Your task to perform on an android device: turn off priority inbox in the gmail app Image 0: 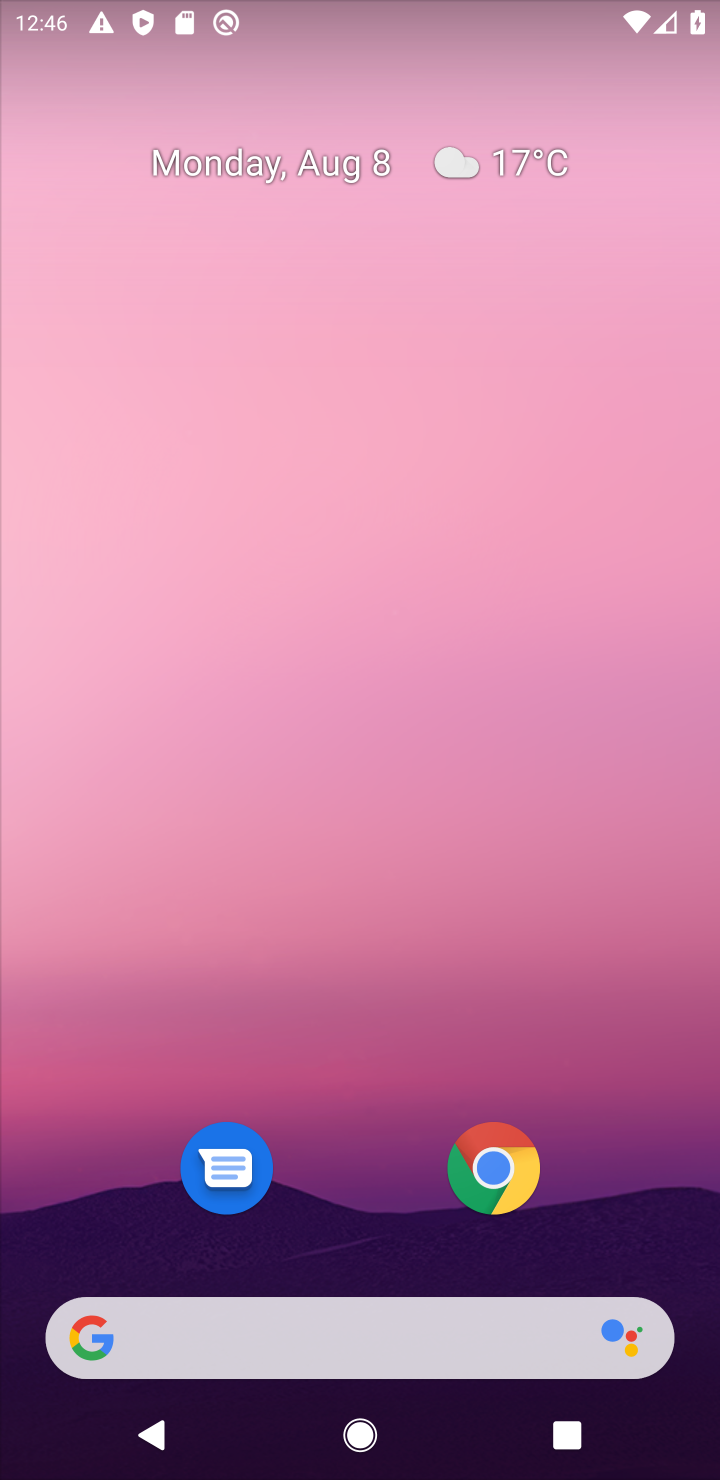
Step 0: drag from (141, 1274) to (293, 797)
Your task to perform on an android device: turn off priority inbox in the gmail app Image 1: 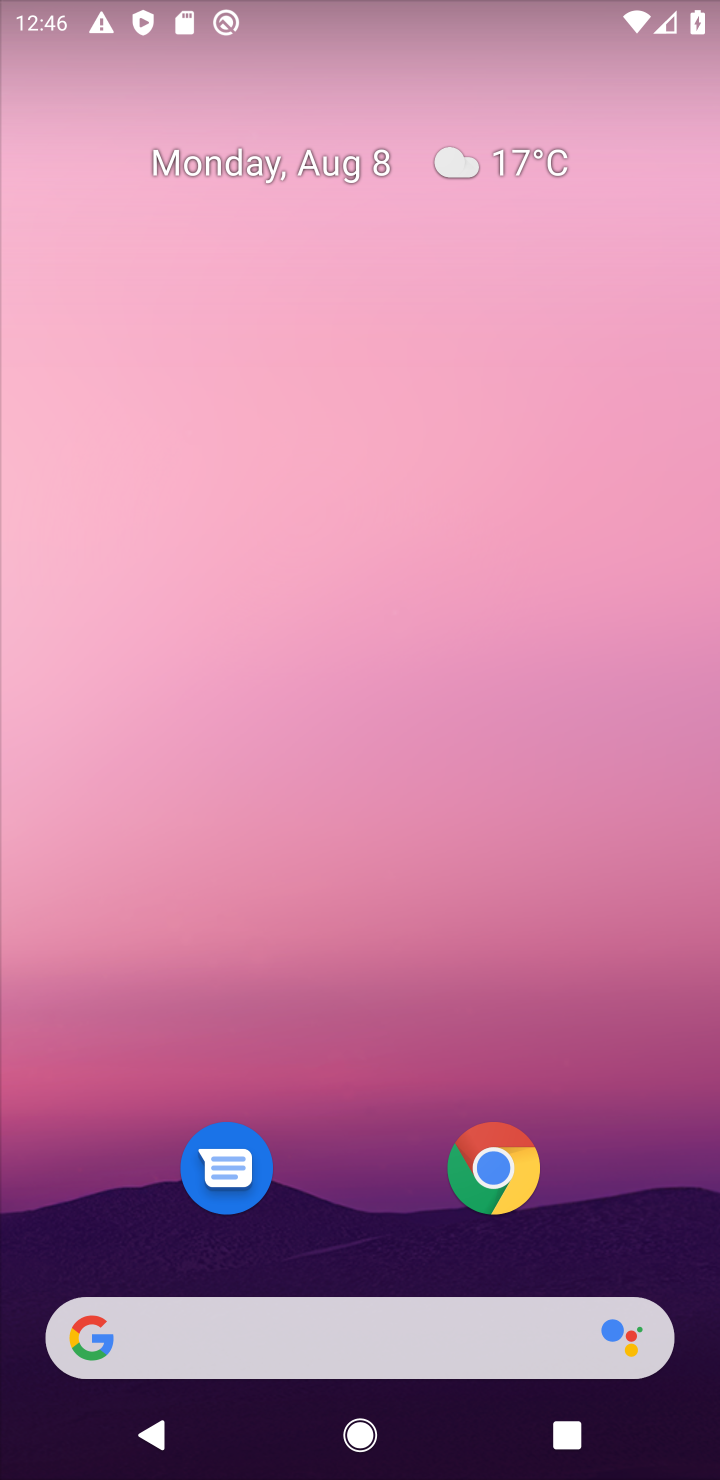
Step 1: click (51, 1445)
Your task to perform on an android device: turn off priority inbox in the gmail app Image 2: 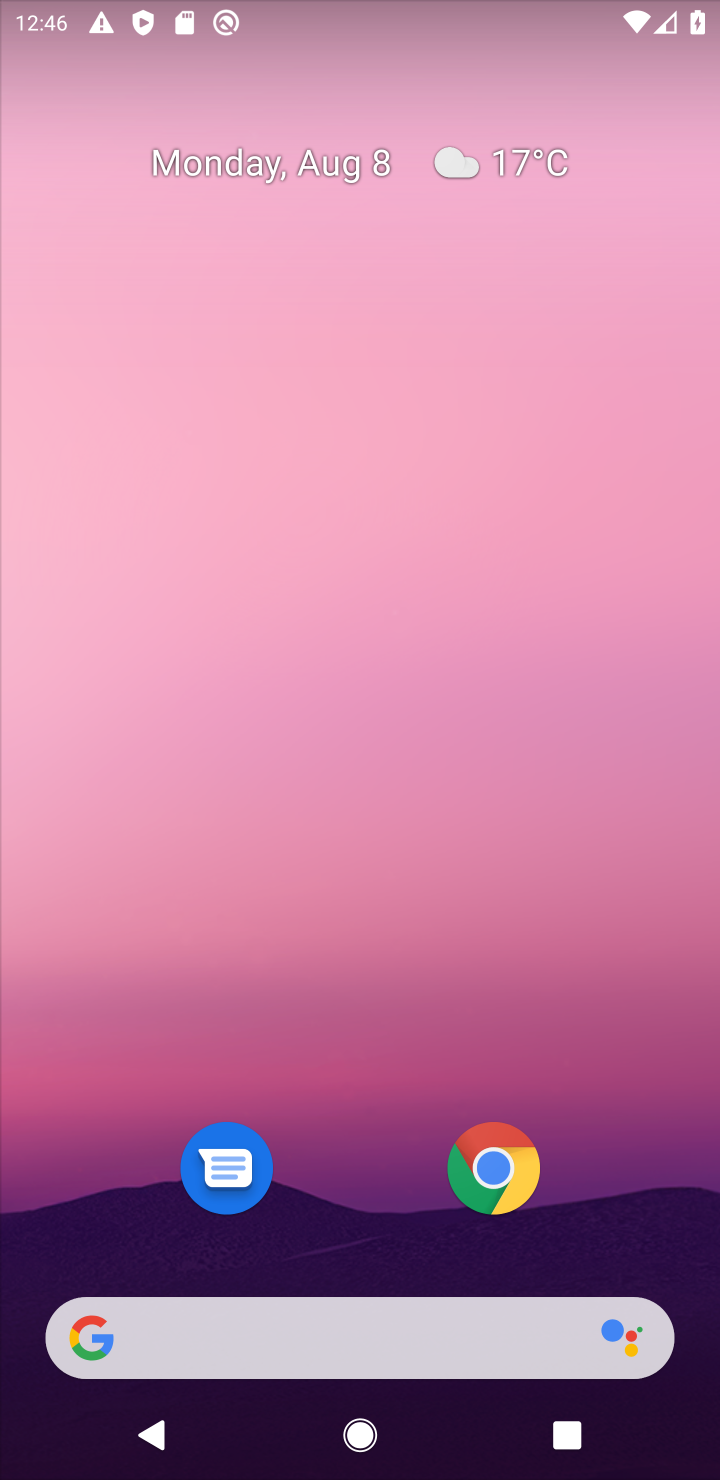
Step 2: task complete